Your task to perform on an android device: Check the news Image 0: 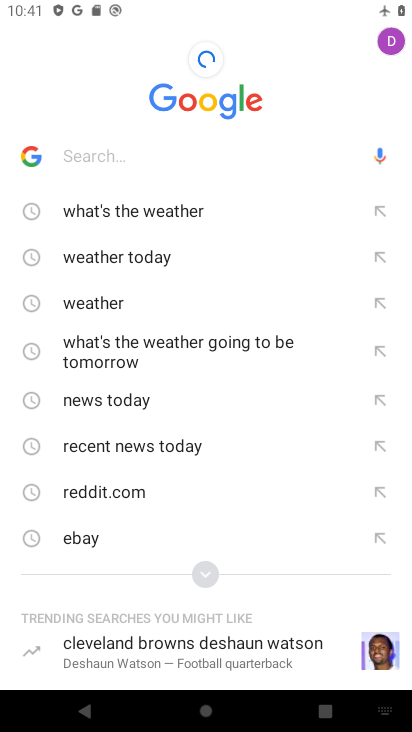
Step 0: press home button
Your task to perform on an android device: Check the news Image 1: 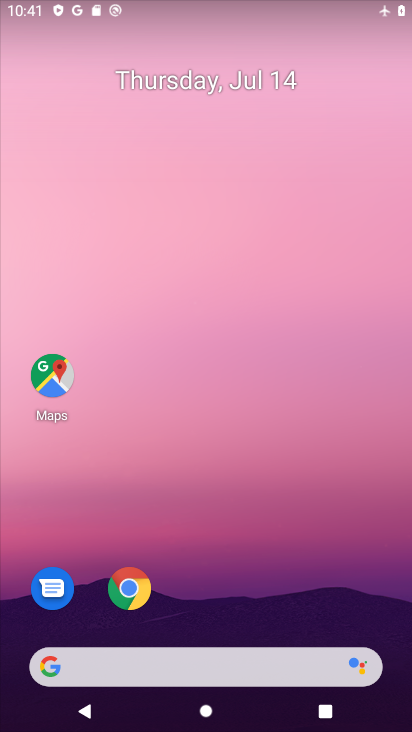
Step 1: drag from (218, 604) to (234, 87)
Your task to perform on an android device: Check the news Image 2: 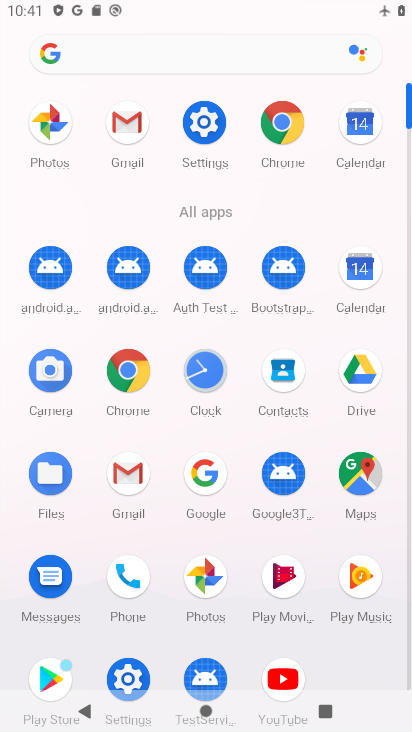
Step 2: drag from (363, 3) to (251, 608)
Your task to perform on an android device: Check the news Image 3: 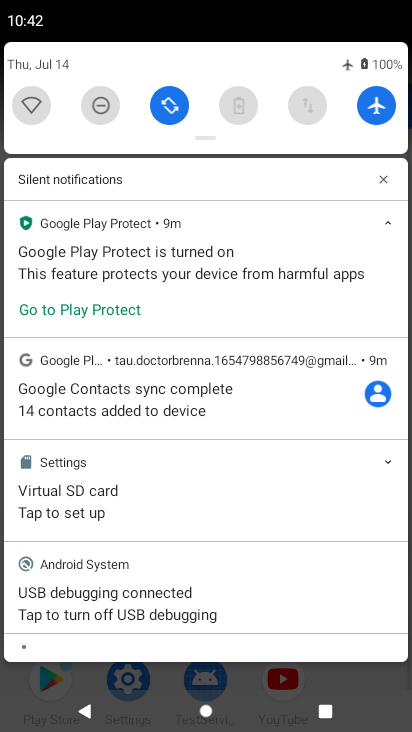
Step 3: click (376, 121)
Your task to perform on an android device: Check the news Image 4: 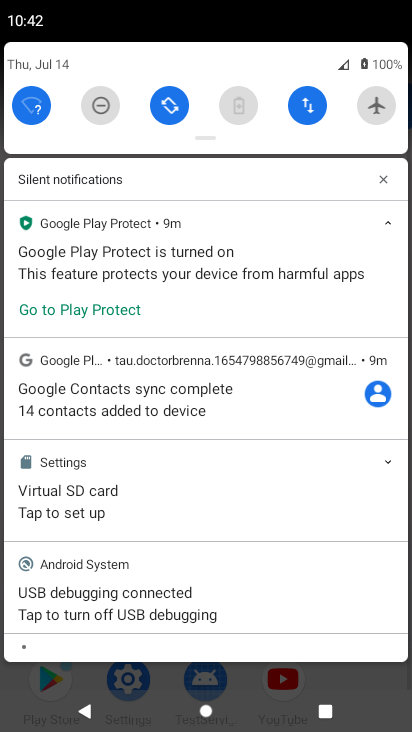
Step 4: drag from (225, 671) to (241, 213)
Your task to perform on an android device: Check the news Image 5: 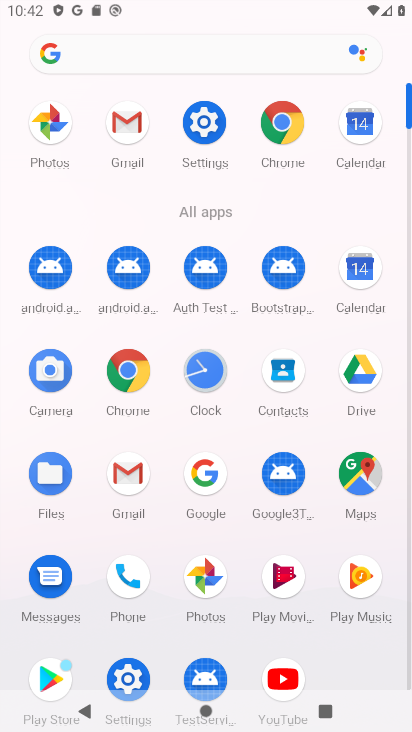
Step 5: click (141, 375)
Your task to perform on an android device: Check the news Image 6: 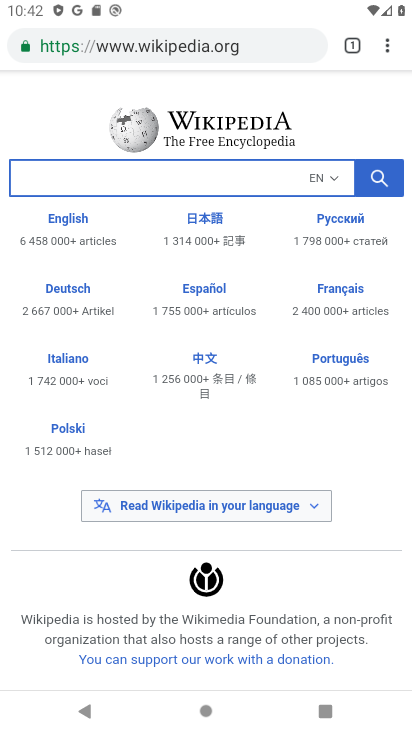
Step 6: click (140, 56)
Your task to perform on an android device: Check the news Image 7: 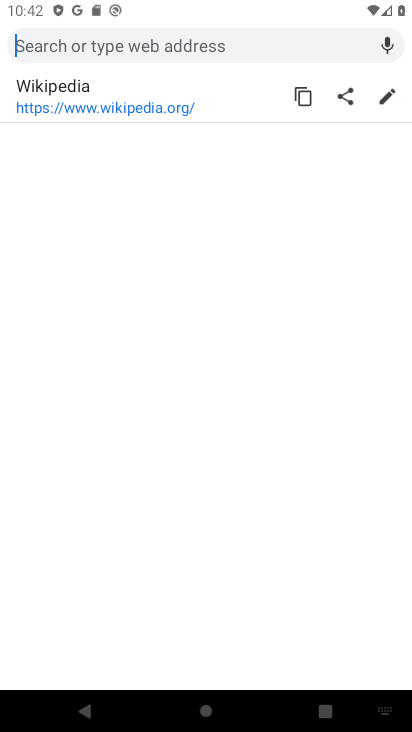
Step 7: type "Check the news"
Your task to perform on an android device: Check the news Image 8: 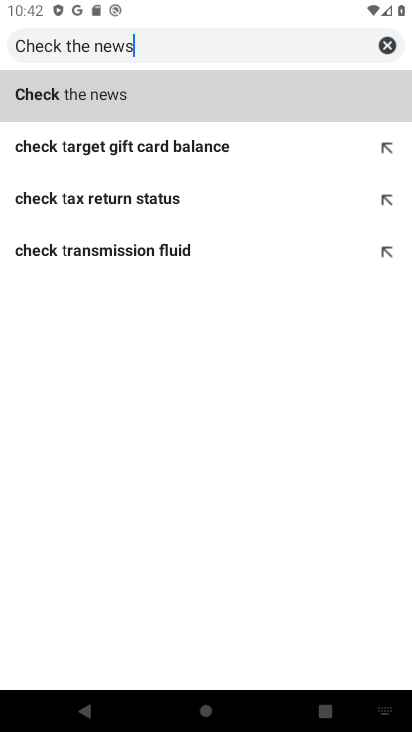
Step 8: type ""
Your task to perform on an android device: Check the news Image 9: 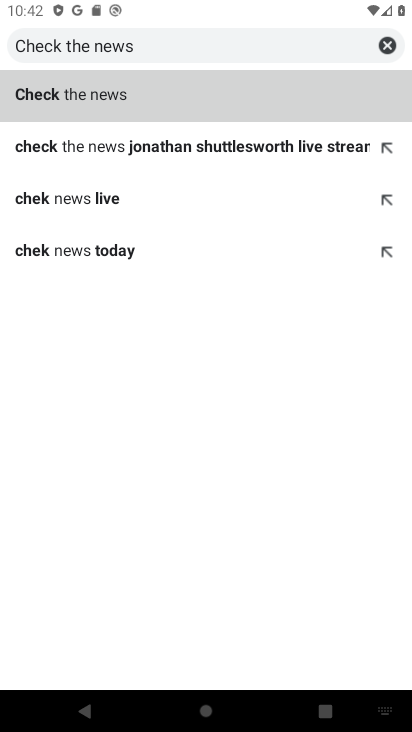
Step 9: click (164, 100)
Your task to perform on an android device: Check the news Image 10: 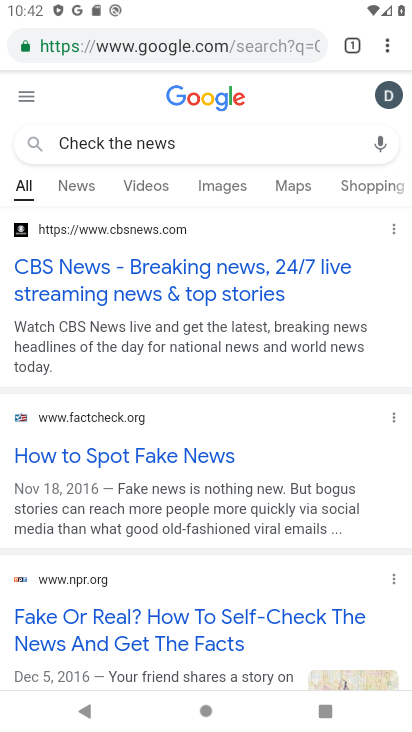
Step 10: task complete